Your task to perform on an android device: clear history in the chrome app Image 0: 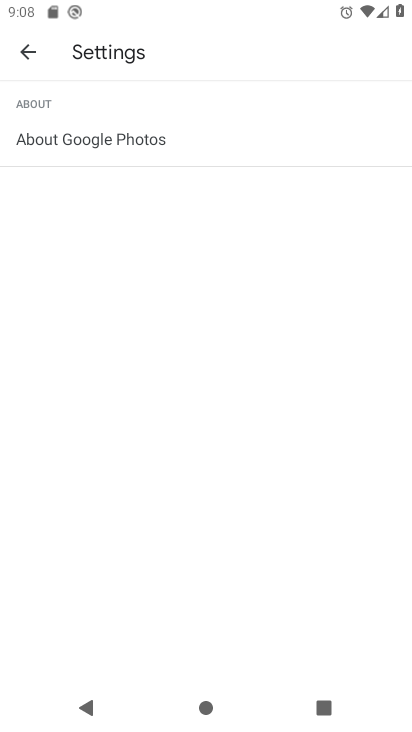
Step 0: press home button
Your task to perform on an android device: clear history in the chrome app Image 1: 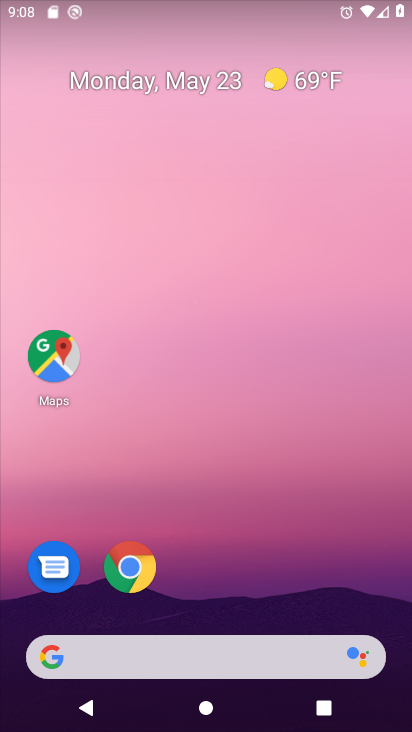
Step 1: drag from (208, 441) to (241, 140)
Your task to perform on an android device: clear history in the chrome app Image 2: 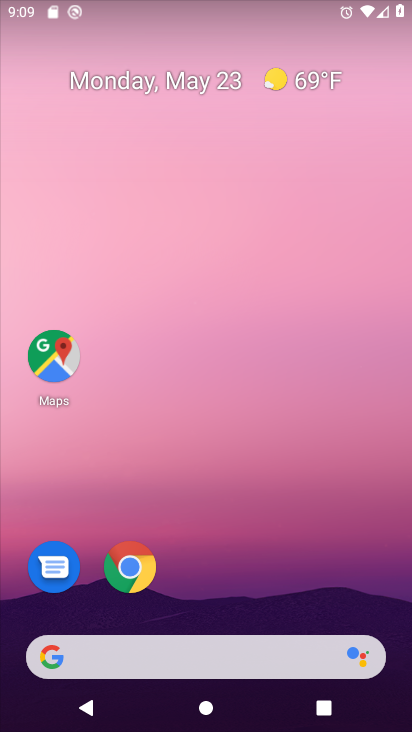
Step 2: drag from (263, 563) to (322, 3)
Your task to perform on an android device: clear history in the chrome app Image 3: 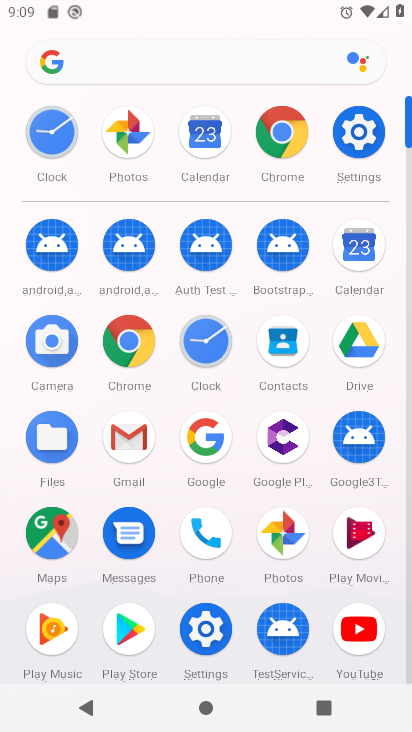
Step 3: click (284, 137)
Your task to perform on an android device: clear history in the chrome app Image 4: 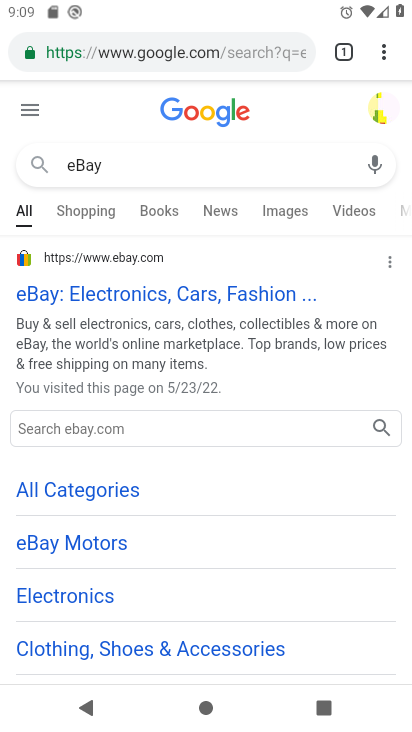
Step 4: click (378, 47)
Your task to perform on an android device: clear history in the chrome app Image 5: 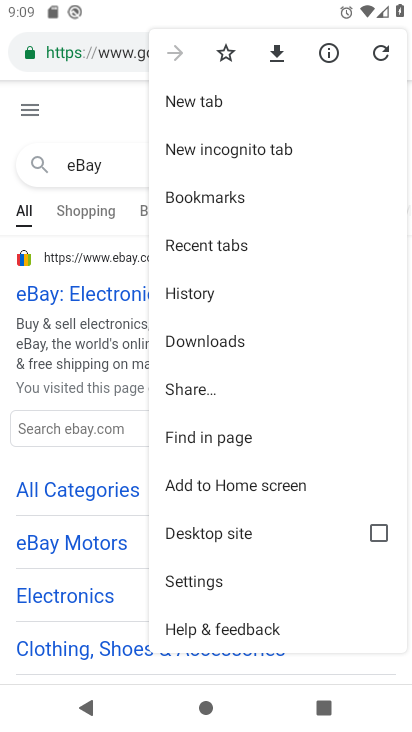
Step 5: click (197, 296)
Your task to perform on an android device: clear history in the chrome app Image 6: 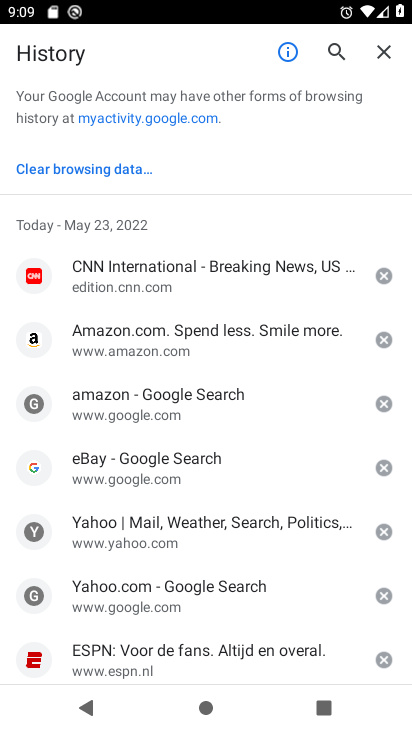
Step 6: click (129, 173)
Your task to perform on an android device: clear history in the chrome app Image 7: 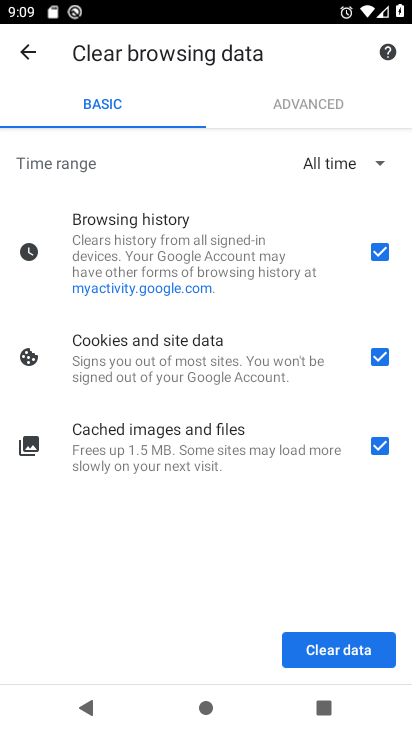
Step 7: click (379, 428)
Your task to perform on an android device: clear history in the chrome app Image 8: 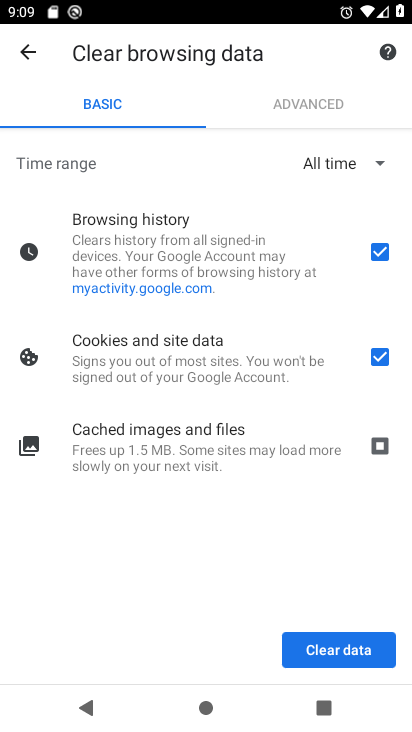
Step 8: click (372, 365)
Your task to perform on an android device: clear history in the chrome app Image 9: 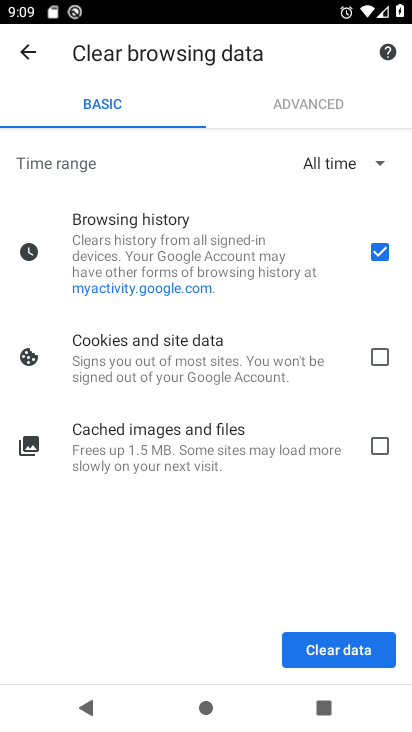
Step 9: click (343, 646)
Your task to perform on an android device: clear history in the chrome app Image 10: 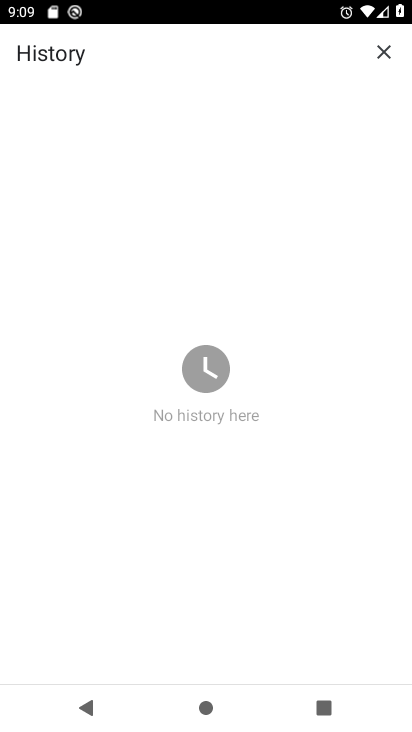
Step 10: task complete